Your task to perform on an android device: Open calendar and show me the first week of next month Image 0: 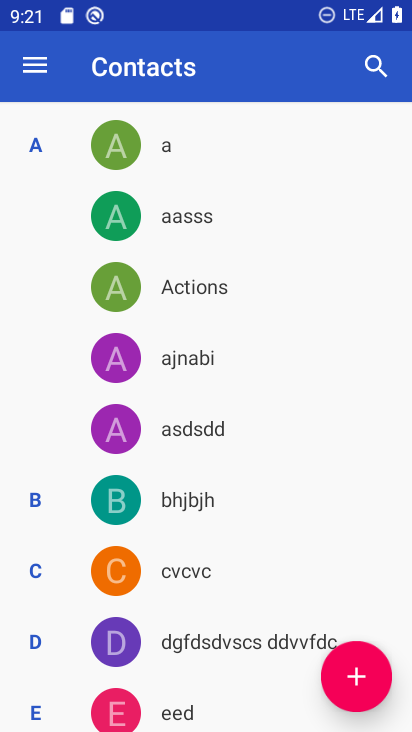
Step 0: press home button
Your task to perform on an android device: Open calendar and show me the first week of next month Image 1: 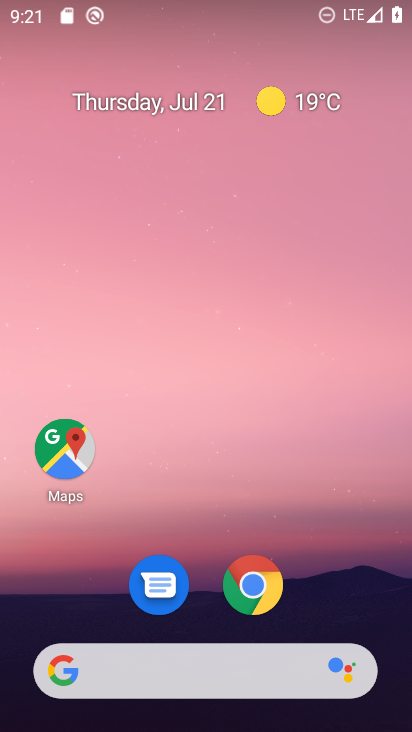
Step 1: drag from (312, 609) to (324, 0)
Your task to perform on an android device: Open calendar and show me the first week of next month Image 2: 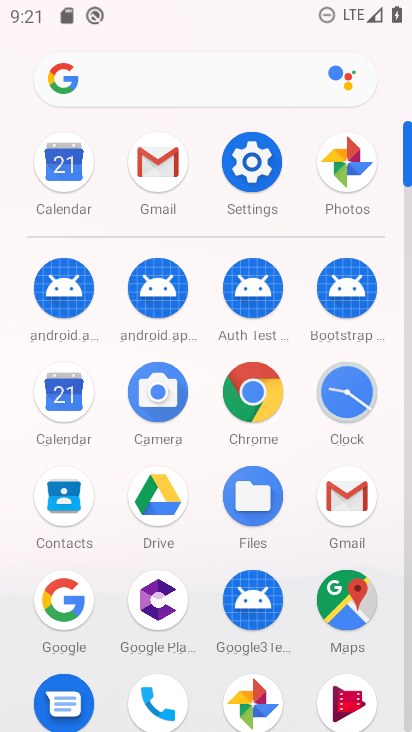
Step 2: click (76, 161)
Your task to perform on an android device: Open calendar and show me the first week of next month Image 3: 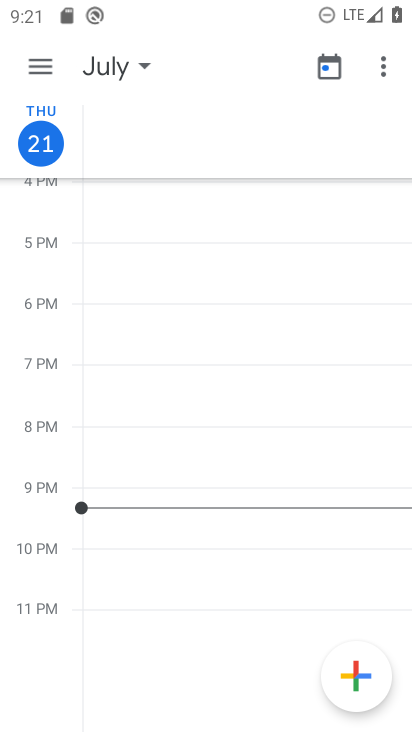
Step 3: click (40, 53)
Your task to perform on an android device: Open calendar and show me the first week of next month Image 4: 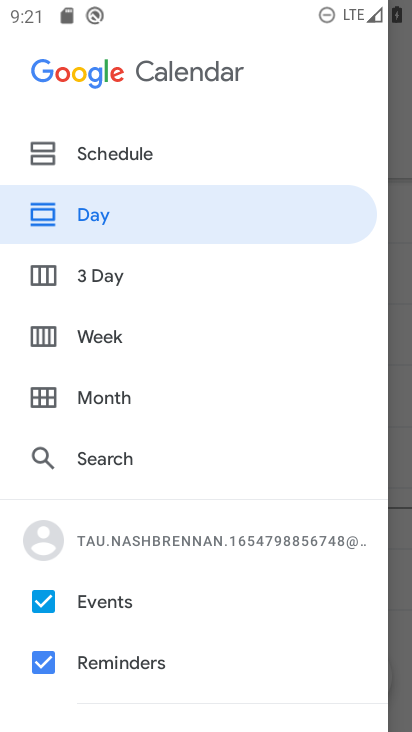
Step 4: click (49, 341)
Your task to perform on an android device: Open calendar and show me the first week of next month Image 5: 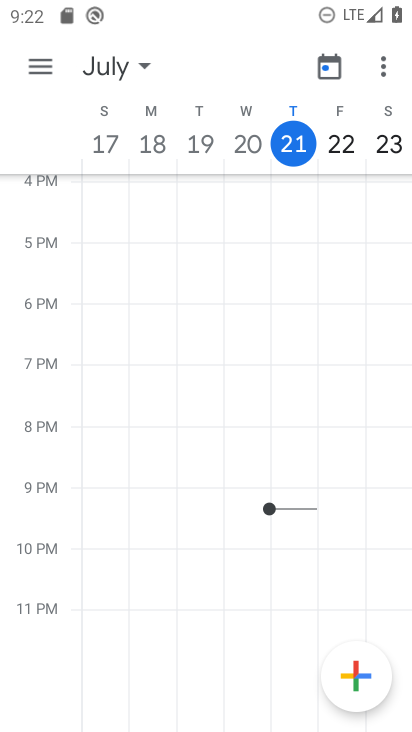
Step 5: task complete